Your task to perform on an android device: Go to wifi settings Image 0: 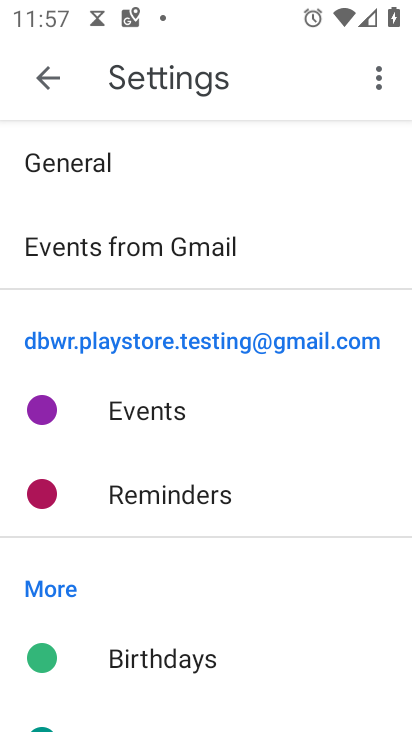
Step 0: press home button
Your task to perform on an android device: Go to wifi settings Image 1: 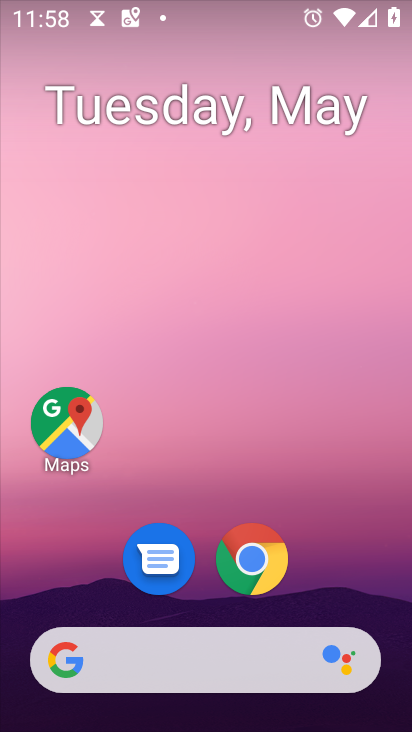
Step 1: drag from (351, 485) to (328, 41)
Your task to perform on an android device: Go to wifi settings Image 2: 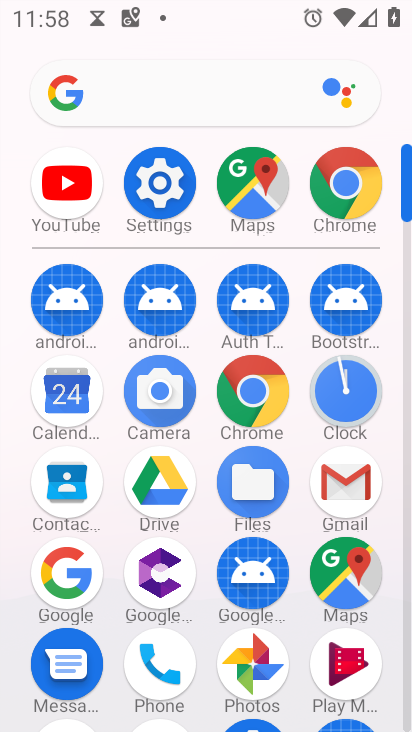
Step 2: click (155, 220)
Your task to perform on an android device: Go to wifi settings Image 3: 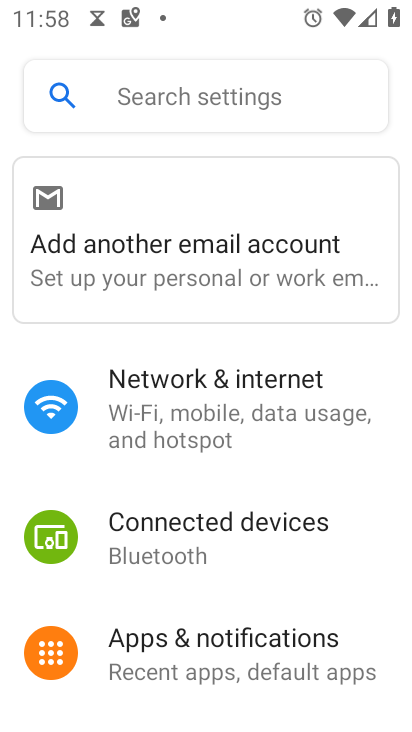
Step 3: click (172, 422)
Your task to perform on an android device: Go to wifi settings Image 4: 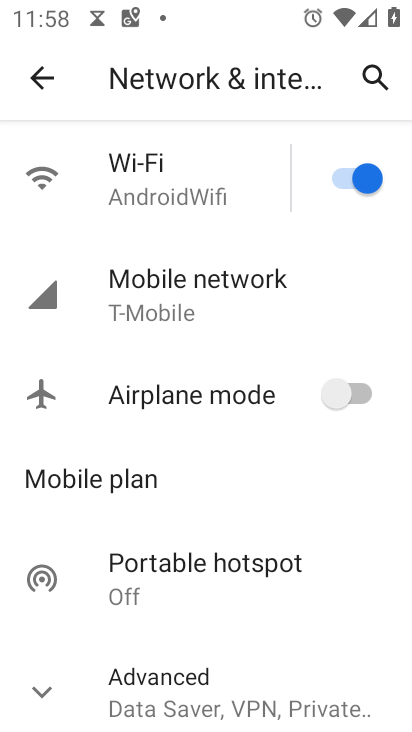
Step 4: click (146, 214)
Your task to perform on an android device: Go to wifi settings Image 5: 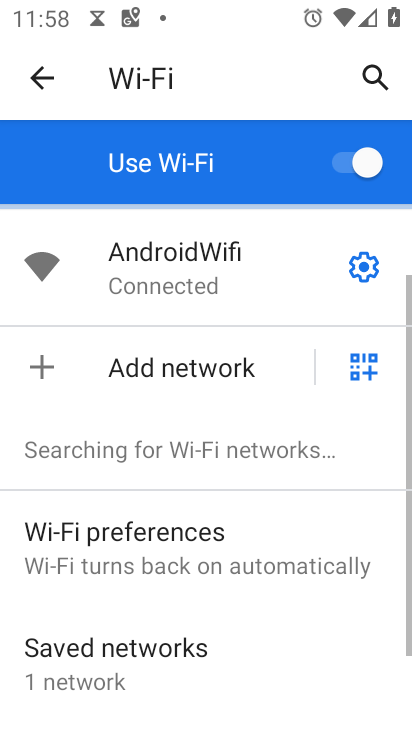
Step 5: task complete